Your task to perform on an android device: remove spam from my inbox in the gmail app Image 0: 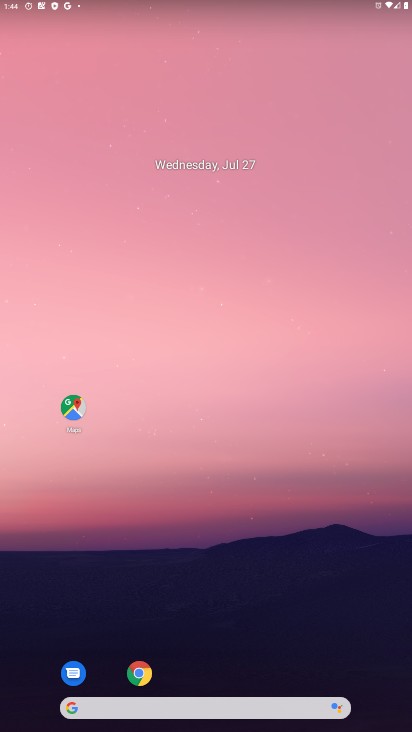
Step 0: drag from (247, 654) to (323, 42)
Your task to perform on an android device: remove spam from my inbox in the gmail app Image 1: 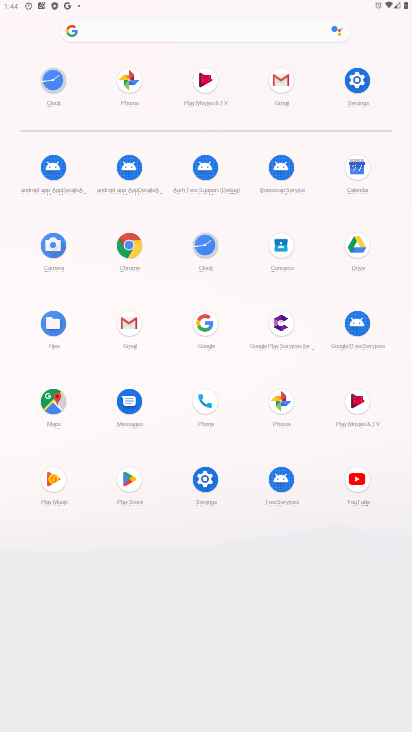
Step 1: click (283, 84)
Your task to perform on an android device: remove spam from my inbox in the gmail app Image 2: 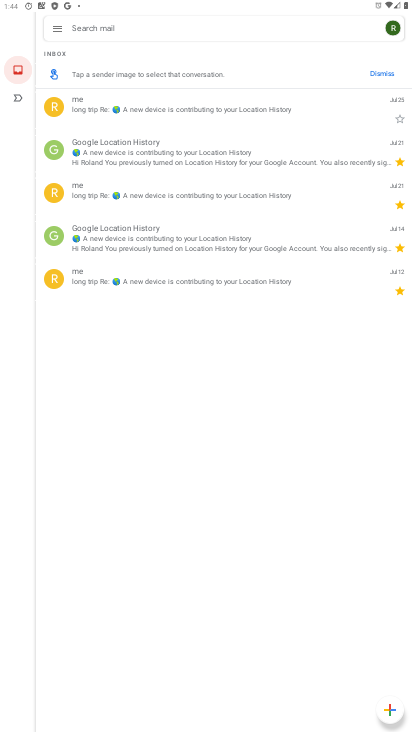
Step 2: click (52, 28)
Your task to perform on an android device: remove spam from my inbox in the gmail app Image 3: 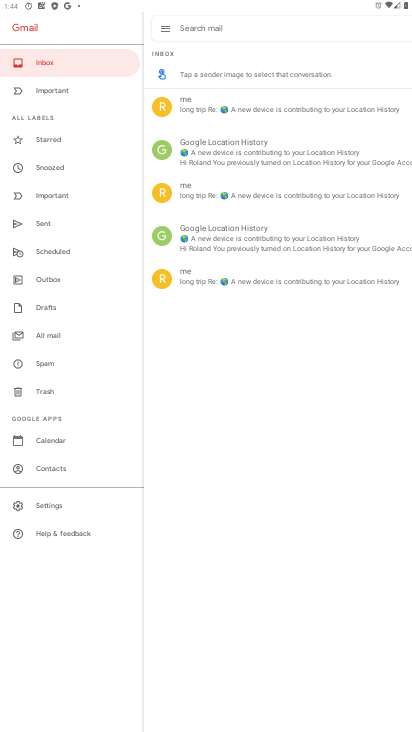
Step 3: click (46, 369)
Your task to perform on an android device: remove spam from my inbox in the gmail app Image 4: 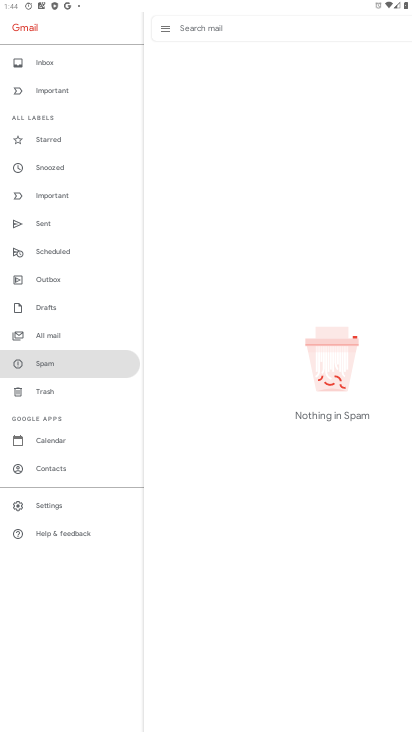
Step 4: task complete